Your task to perform on an android device: toggle airplane mode Image 0: 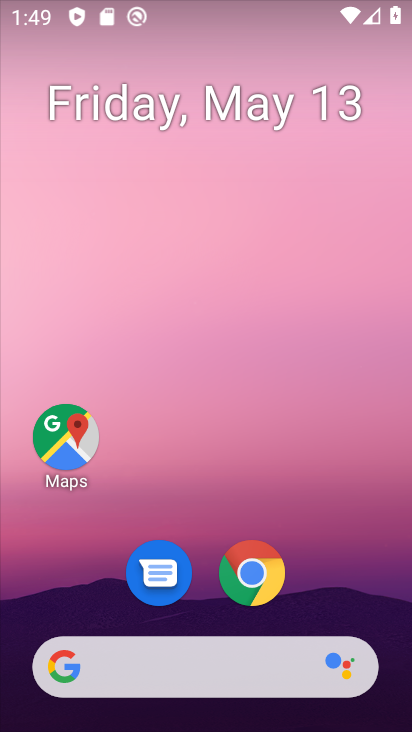
Step 0: drag from (291, 6) to (411, 215)
Your task to perform on an android device: toggle airplane mode Image 1: 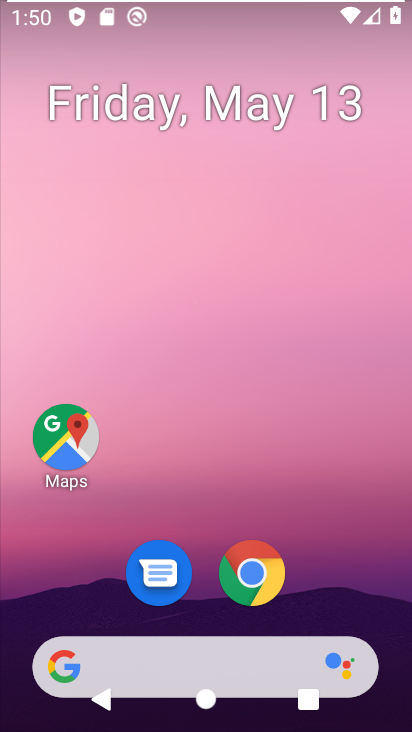
Step 1: click (381, 165)
Your task to perform on an android device: toggle airplane mode Image 2: 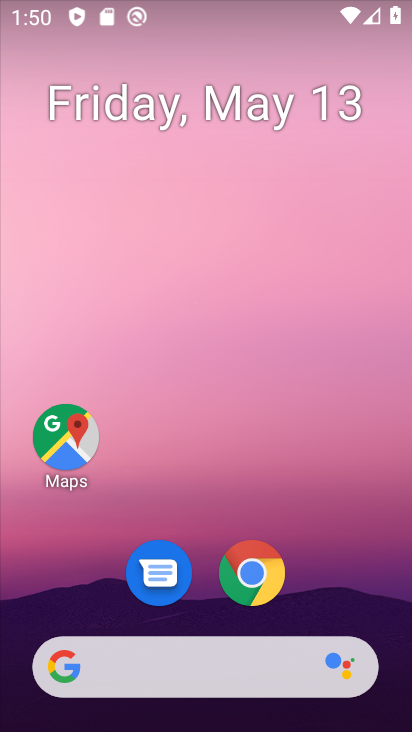
Step 2: drag from (342, 8) to (254, 579)
Your task to perform on an android device: toggle airplane mode Image 3: 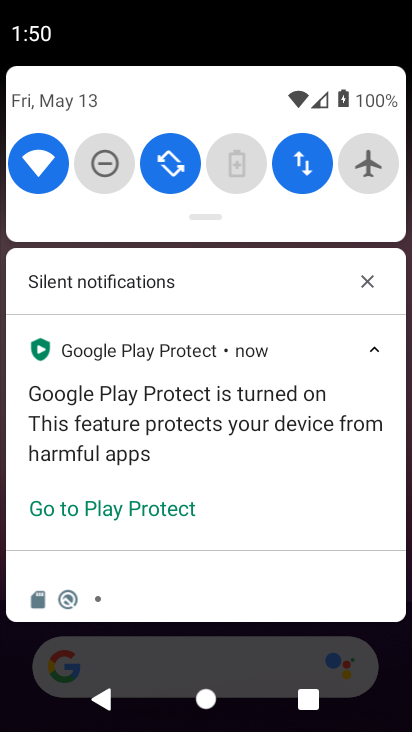
Step 3: click (374, 173)
Your task to perform on an android device: toggle airplane mode Image 4: 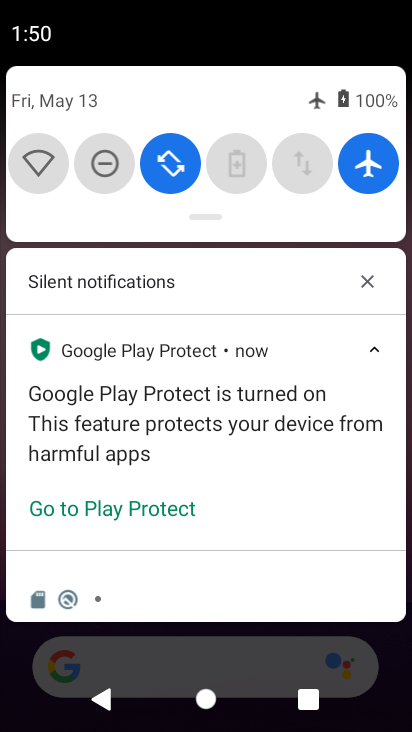
Step 4: task complete